Your task to perform on an android device: make emails show in primary in the gmail app Image 0: 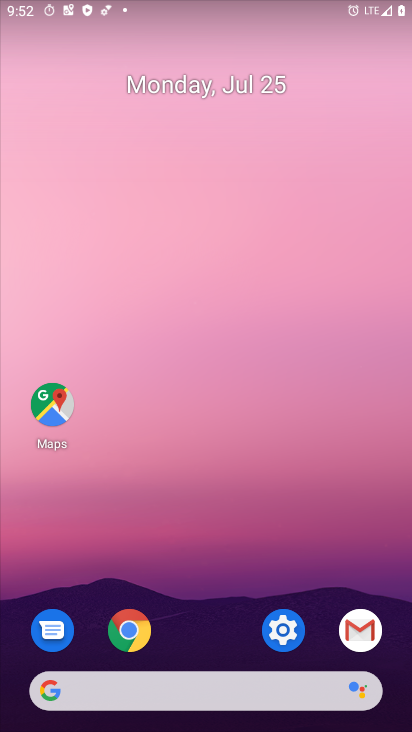
Step 0: click (353, 638)
Your task to perform on an android device: make emails show in primary in the gmail app Image 1: 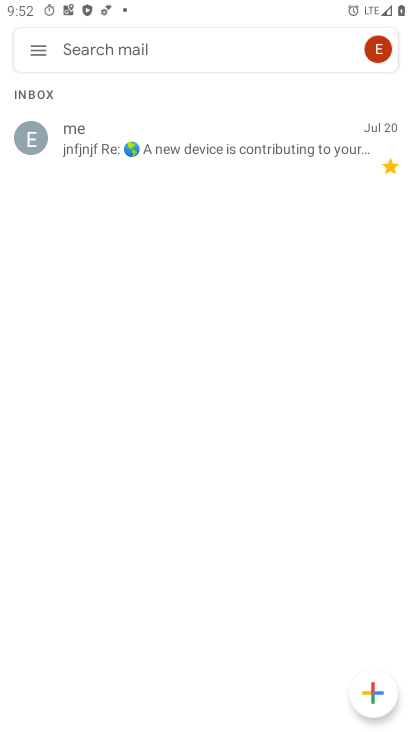
Step 1: click (34, 57)
Your task to perform on an android device: make emails show in primary in the gmail app Image 2: 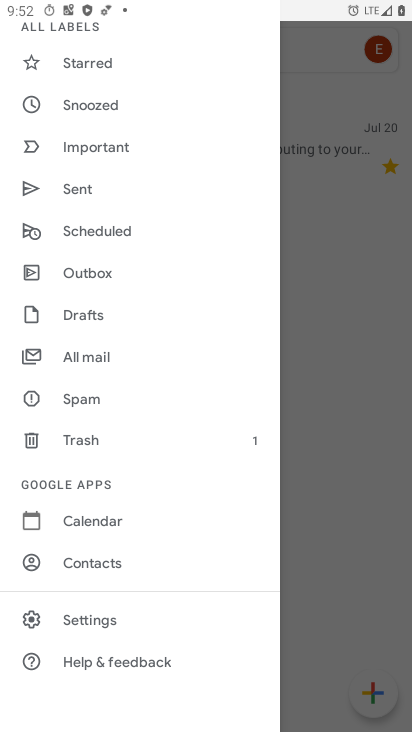
Step 2: click (106, 624)
Your task to perform on an android device: make emails show in primary in the gmail app Image 3: 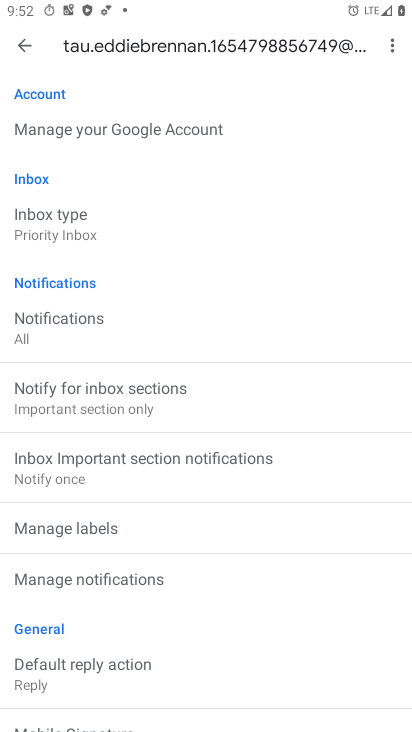
Step 3: click (54, 226)
Your task to perform on an android device: make emails show in primary in the gmail app Image 4: 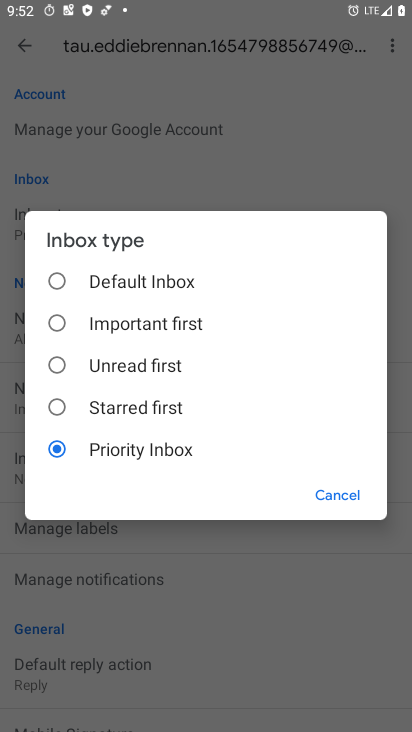
Step 4: click (141, 286)
Your task to perform on an android device: make emails show in primary in the gmail app Image 5: 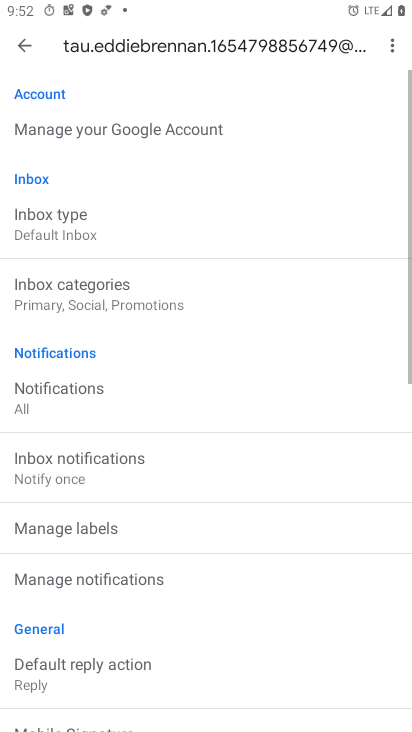
Step 5: click (69, 280)
Your task to perform on an android device: make emails show in primary in the gmail app Image 6: 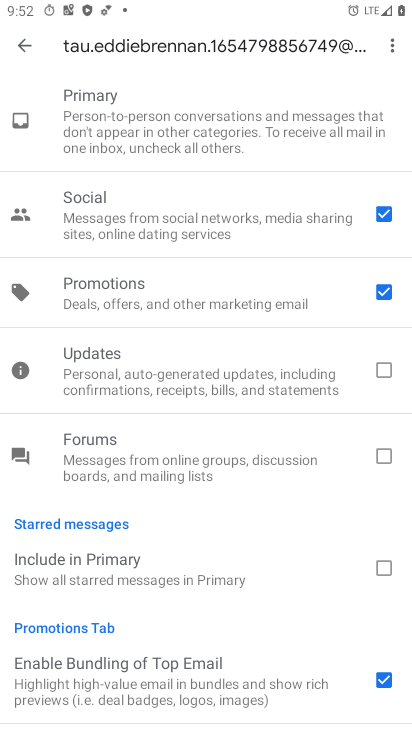
Step 6: click (203, 138)
Your task to perform on an android device: make emails show in primary in the gmail app Image 7: 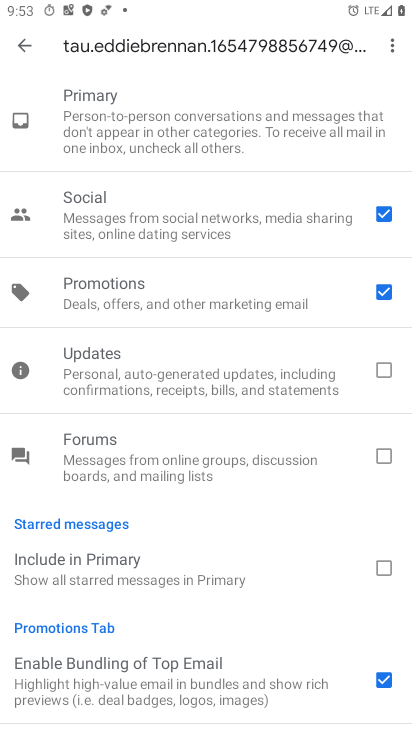
Step 7: task complete